Your task to perform on an android device: Go to accessibility settings Image 0: 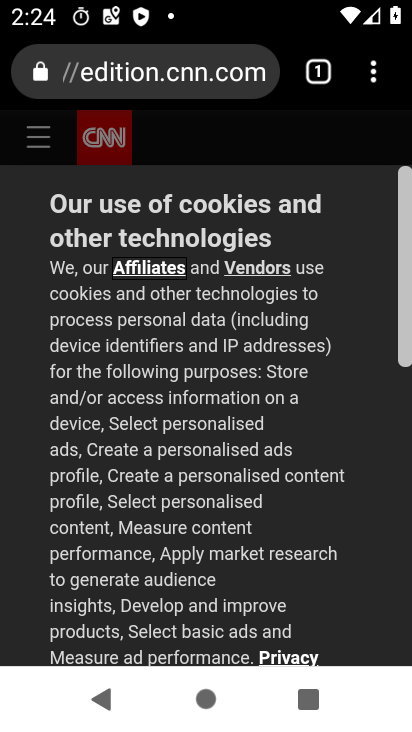
Step 0: press home button
Your task to perform on an android device: Go to accessibility settings Image 1: 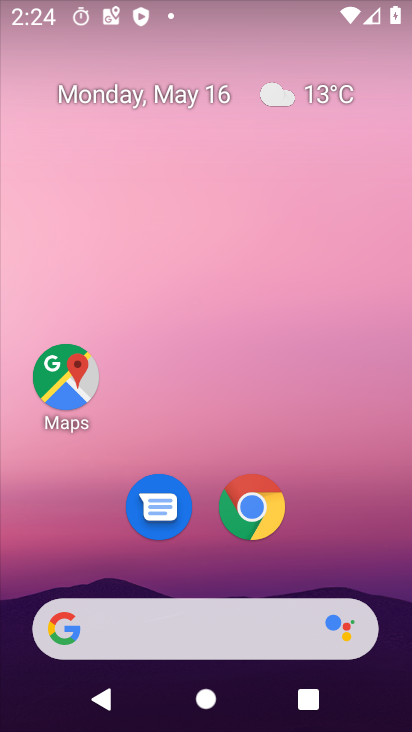
Step 1: drag from (349, 521) to (331, 160)
Your task to perform on an android device: Go to accessibility settings Image 2: 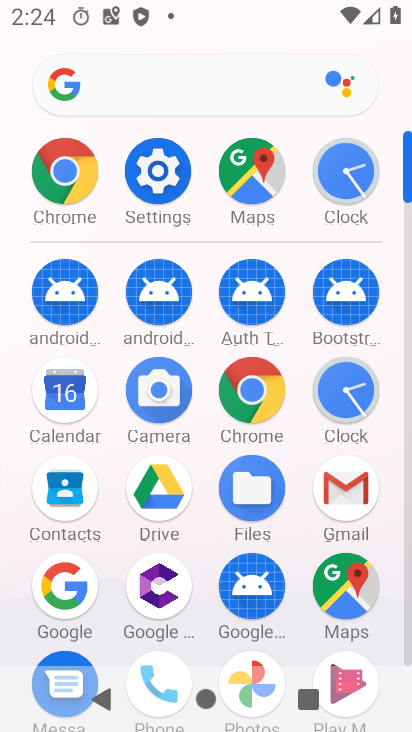
Step 2: click (180, 259)
Your task to perform on an android device: Go to accessibility settings Image 3: 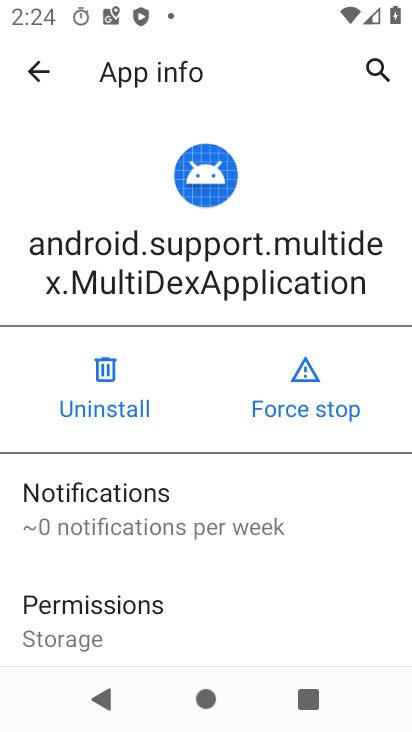
Step 3: click (42, 79)
Your task to perform on an android device: Go to accessibility settings Image 4: 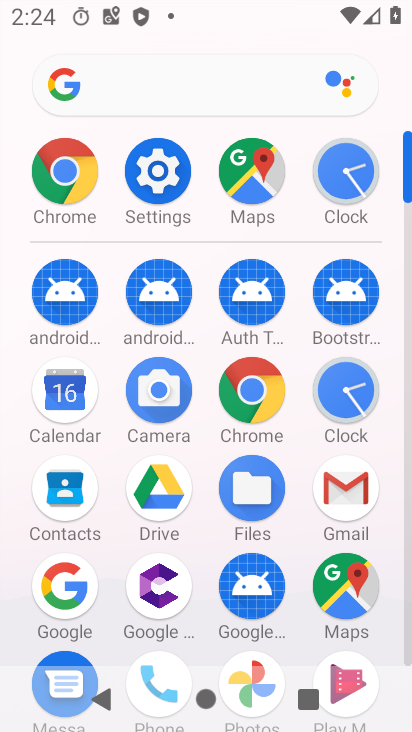
Step 4: click (170, 167)
Your task to perform on an android device: Go to accessibility settings Image 5: 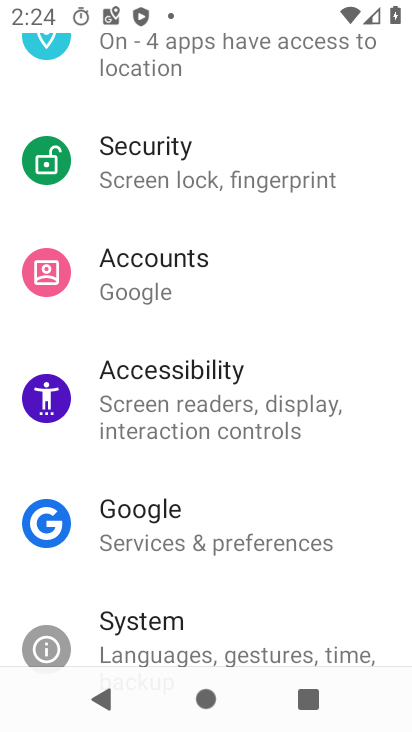
Step 5: drag from (361, 259) to (355, 377)
Your task to perform on an android device: Go to accessibility settings Image 6: 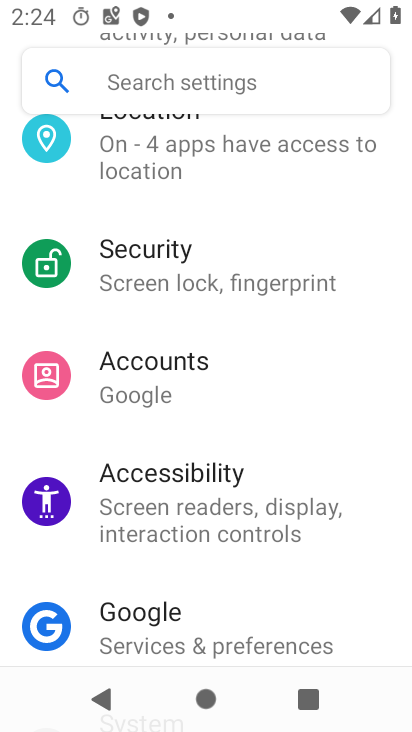
Step 6: drag from (359, 208) to (357, 351)
Your task to perform on an android device: Go to accessibility settings Image 7: 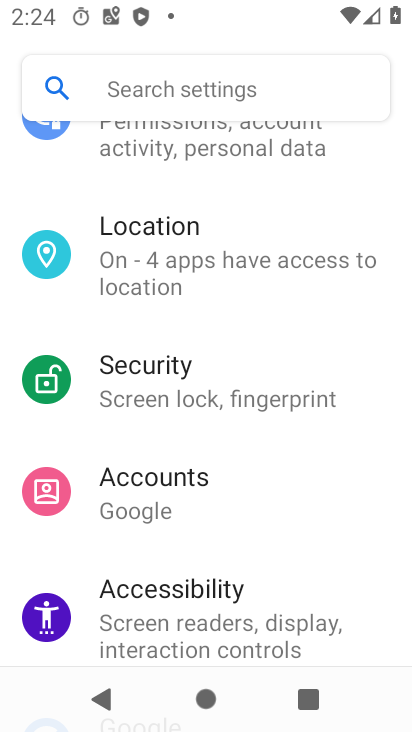
Step 7: drag from (356, 170) to (353, 344)
Your task to perform on an android device: Go to accessibility settings Image 8: 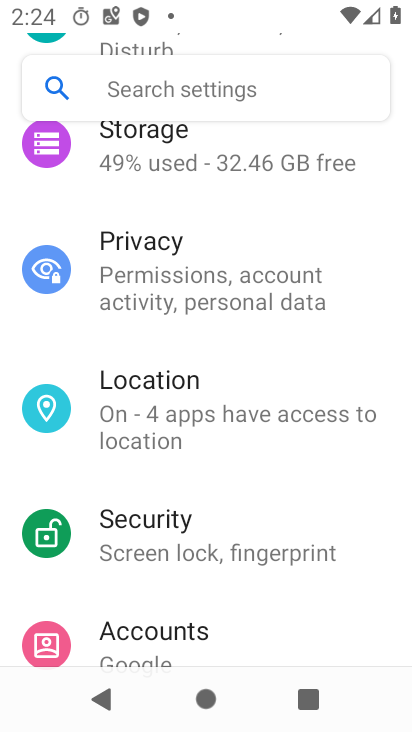
Step 8: drag from (355, 213) to (362, 334)
Your task to perform on an android device: Go to accessibility settings Image 9: 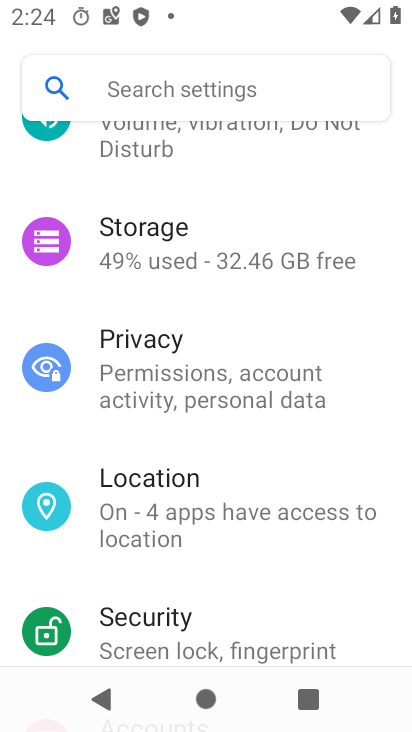
Step 9: drag from (360, 179) to (356, 325)
Your task to perform on an android device: Go to accessibility settings Image 10: 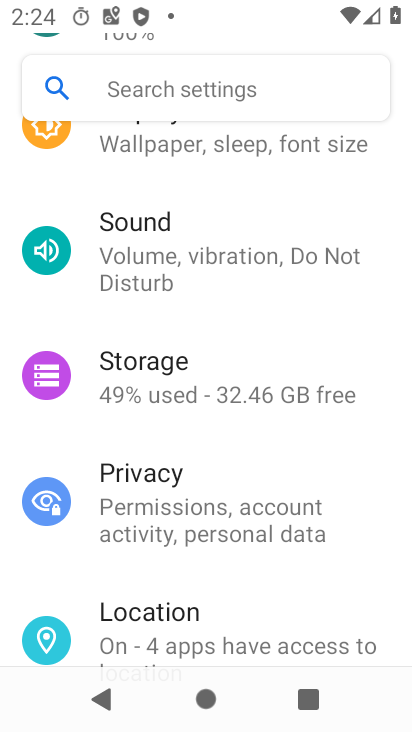
Step 10: drag from (375, 202) to (367, 342)
Your task to perform on an android device: Go to accessibility settings Image 11: 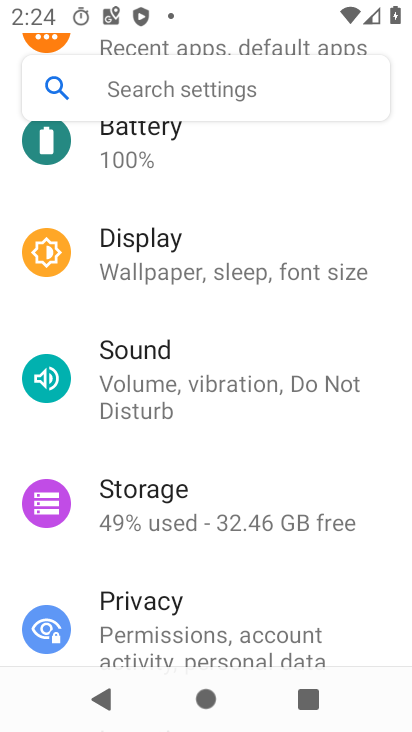
Step 11: drag from (366, 170) to (352, 467)
Your task to perform on an android device: Go to accessibility settings Image 12: 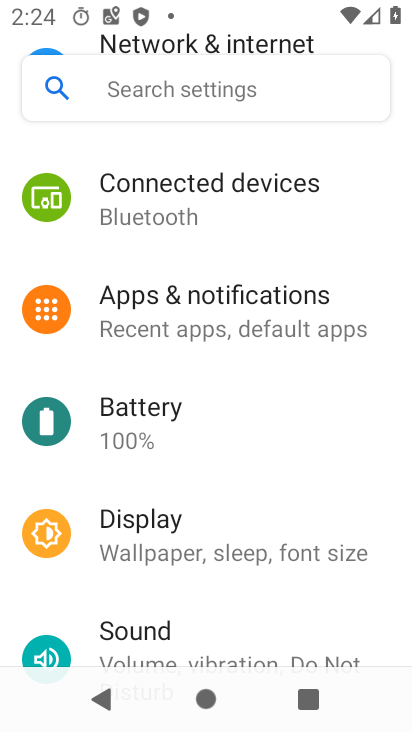
Step 12: drag from (360, 459) to (365, 369)
Your task to perform on an android device: Go to accessibility settings Image 13: 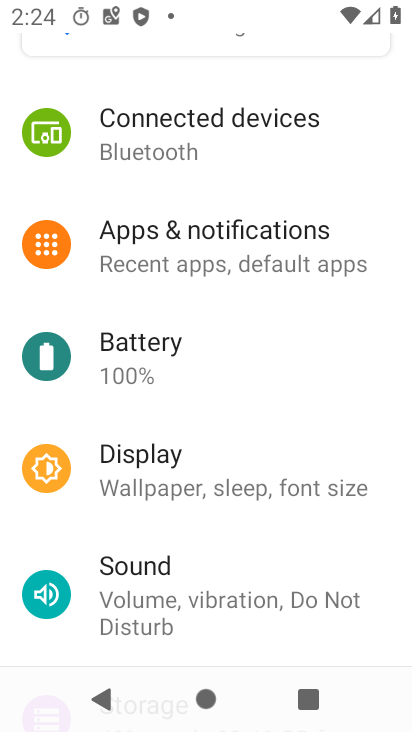
Step 13: drag from (363, 539) to (368, 326)
Your task to perform on an android device: Go to accessibility settings Image 14: 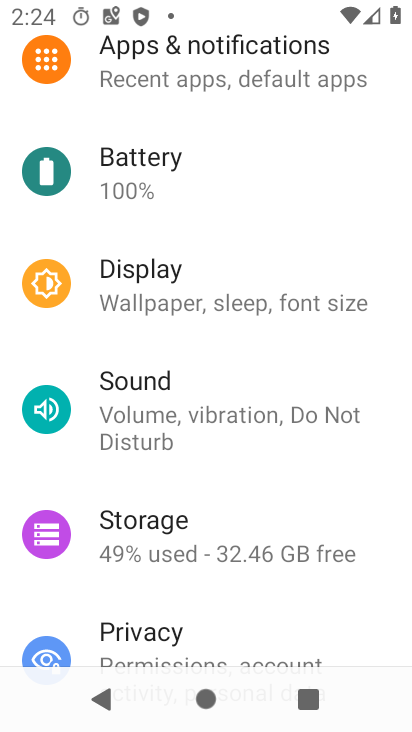
Step 14: drag from (336, 621) to (361, 343)
Your task to perform on an android device: Go to accessibility settings Image 15: 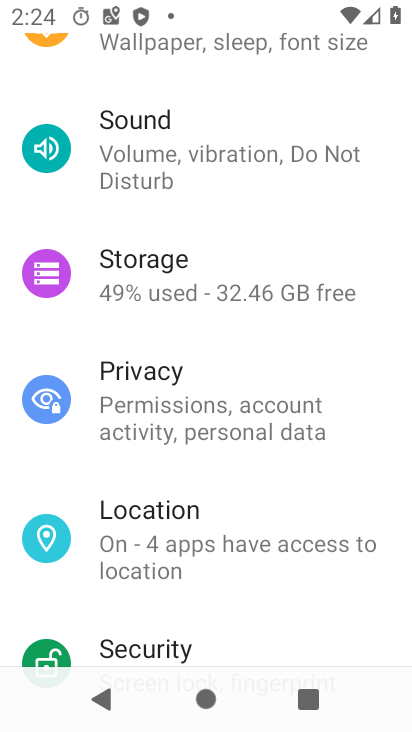
Step 15: drag from (344, 618) to (358, 376)
Your task to perform on an android device: Go to accessibility settings Image 16: 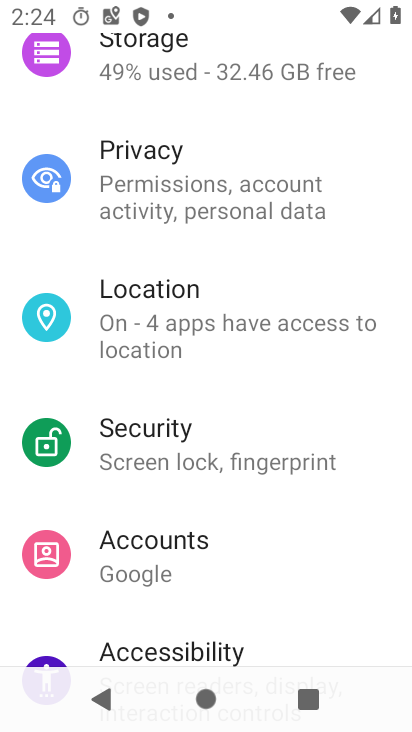
Step 16: drag from (338, 632) to (351, 383)
Your task to perform on an android device: Go to accessibility settings Image 17: 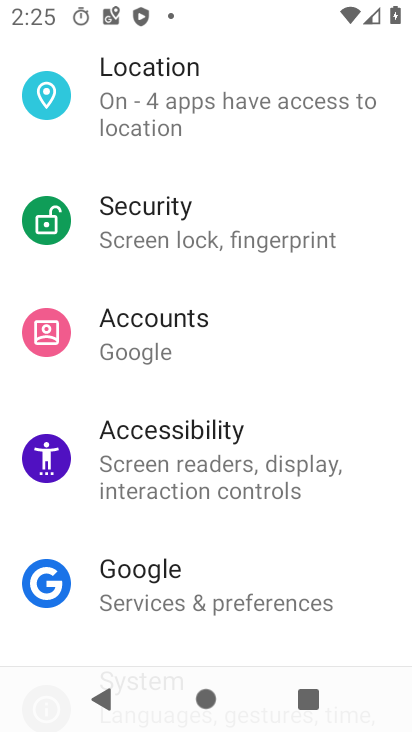
Step 17: click (280, 479)
Your task to perform on an android device: Go to accessibility settings Image 18: 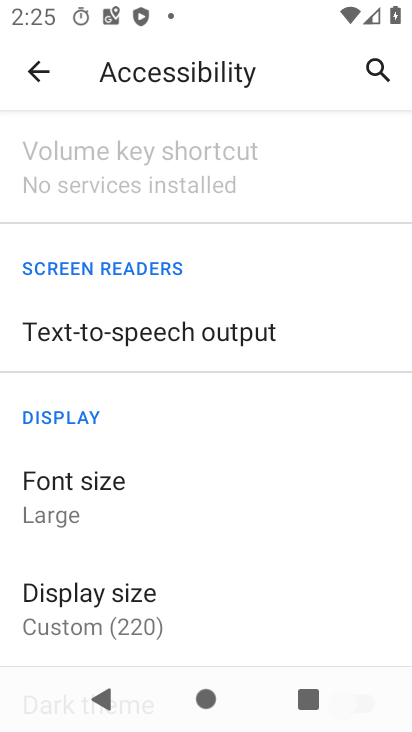
Step 18: task complete